Your task to perform on an android device: choose inbox layout in the gmail app Image 0: 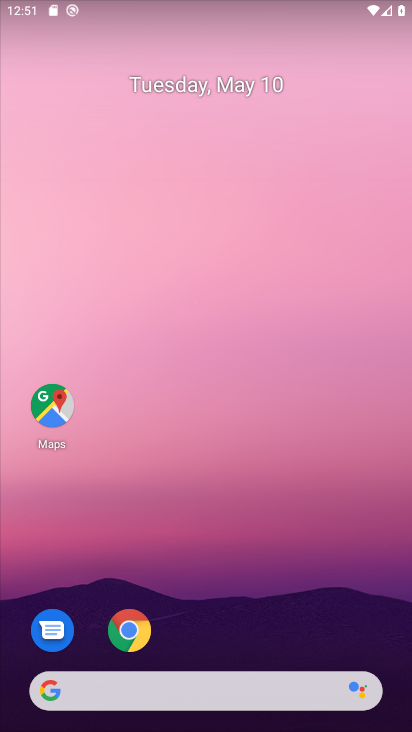
Step 0: drag from (198, 644) to (194, 31)
Your task to perform on an android device: choose inbox layout in the gmail app Image 1: 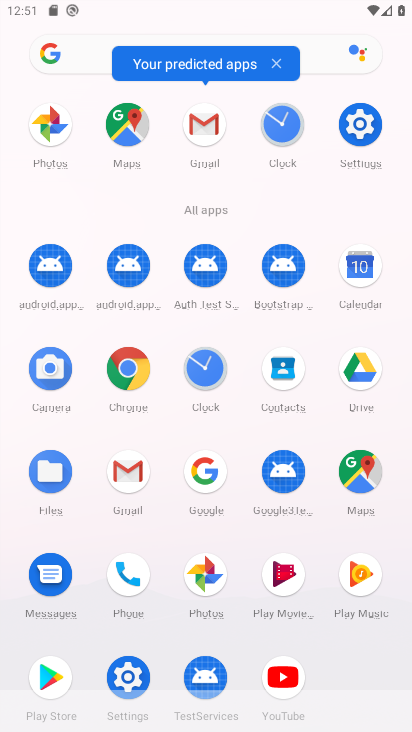
Step 1: click (132, 480)
Your task to perform on an android device: choose inbox layout in the gmail app Image 2: 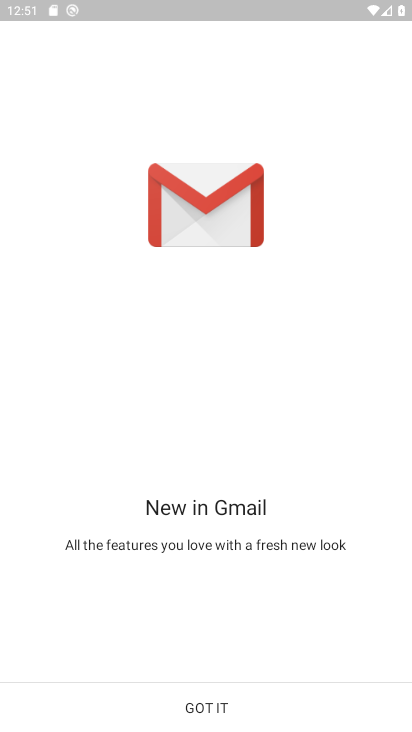
Step 2: click (197, 684)
Your task to perform on an android device: choose inbox layout in the gmail app Image 3: 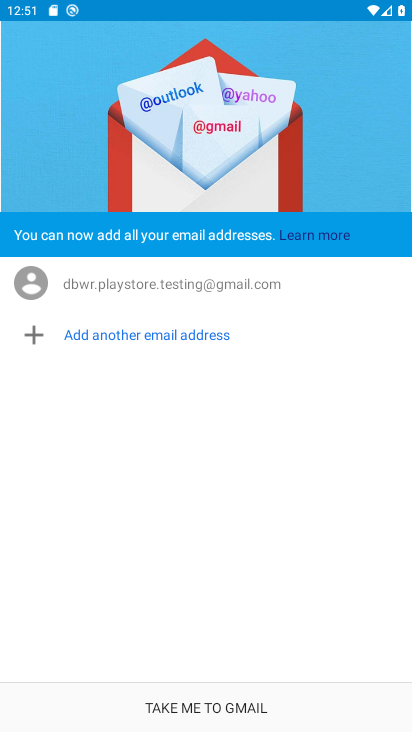
Step 3: click (216, 717)
Your task to perform on an android device: choose inbox layout in the gmail app Image 4: 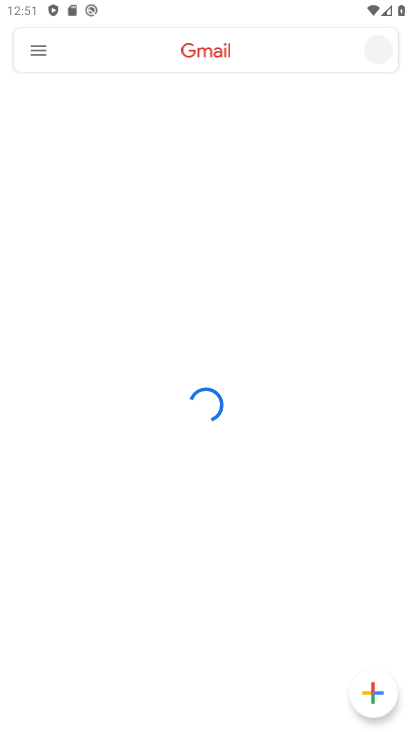
Step 4: click (37, 47)
Your task to perform on an android device: choose inbox layout in the gmail app Image 5: 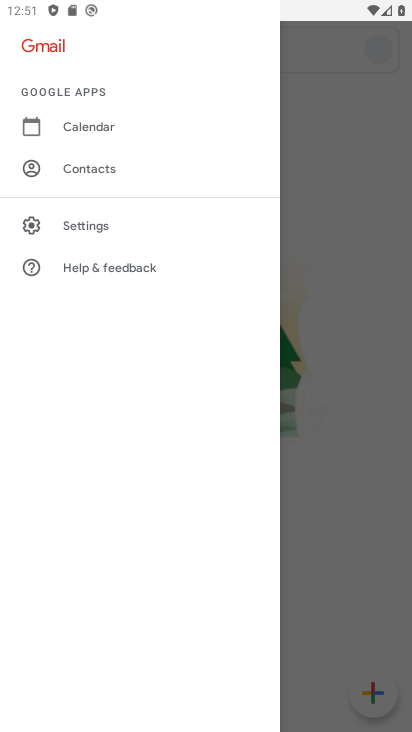
Step 5: click (57, 207)
Your task to perform on an android device: choose inbox layout in the gmail app Image 6: 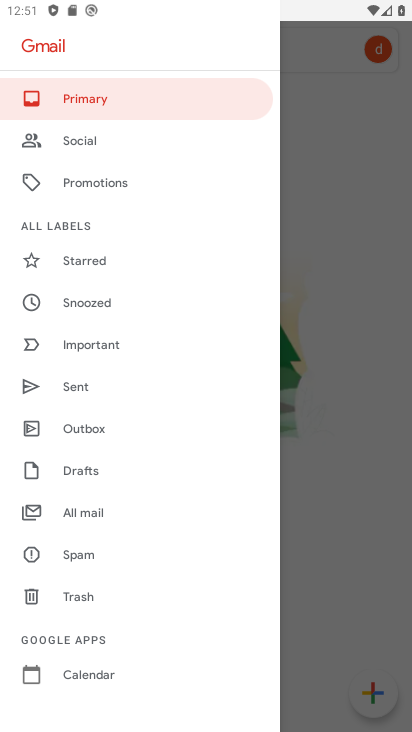
Step 6: drag from (184, 521) to (132, 22)
Your task to perform on an android device: choose inbox layout in the gmail app Image 7: 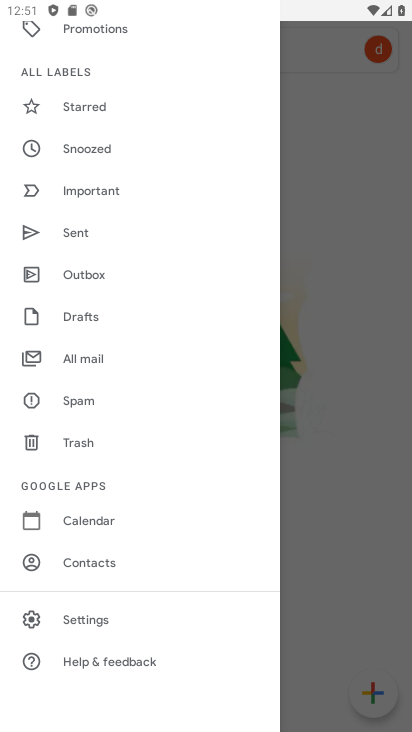
Step 7: click (88, 617)
Your task to perform on an android device: choose inbox layout in the gmail app Image 8: 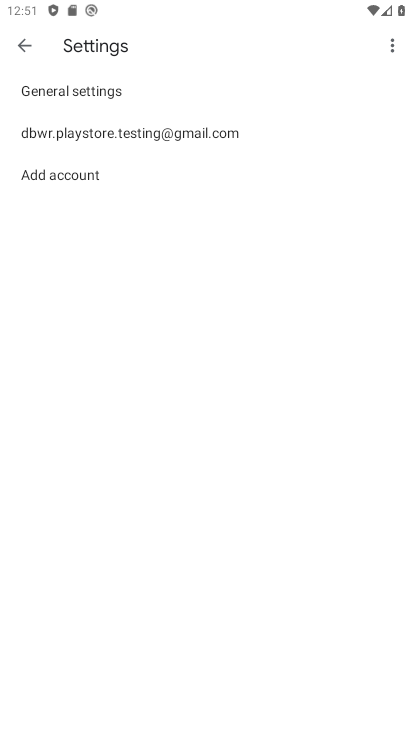
Step 8: click (60, 123)
Your task to perform on an android device: choose inbox layout in the gmail app Image 9: 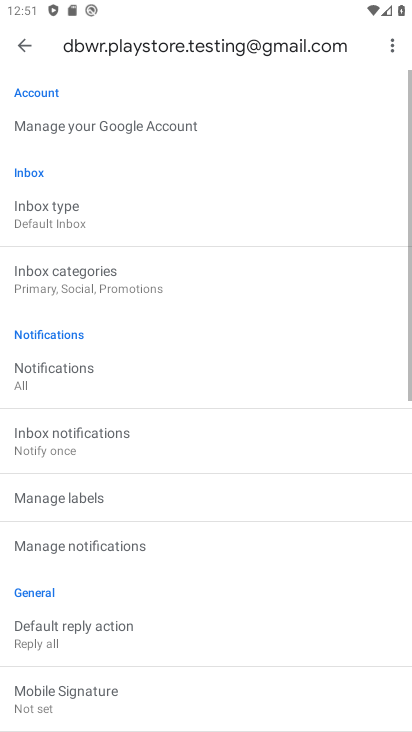
Step 9: click (89, 217)
Your task to perform on an android device: choose inbox layout in the gmail app Image 10: 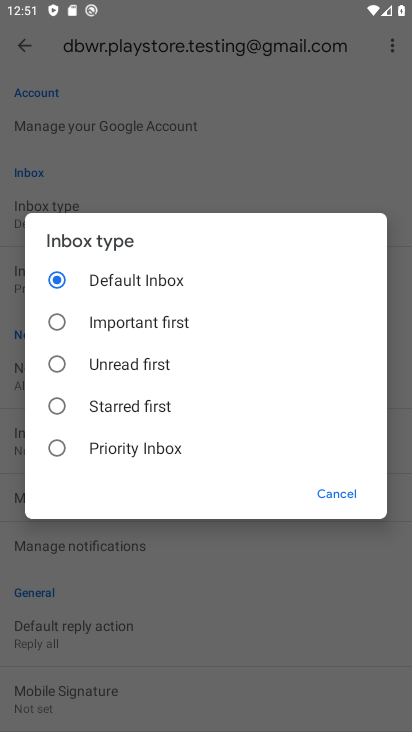
Step 10: click (118, 448)
Your task to perform on an android device: choose inbox layout in the gmail app Image 11: 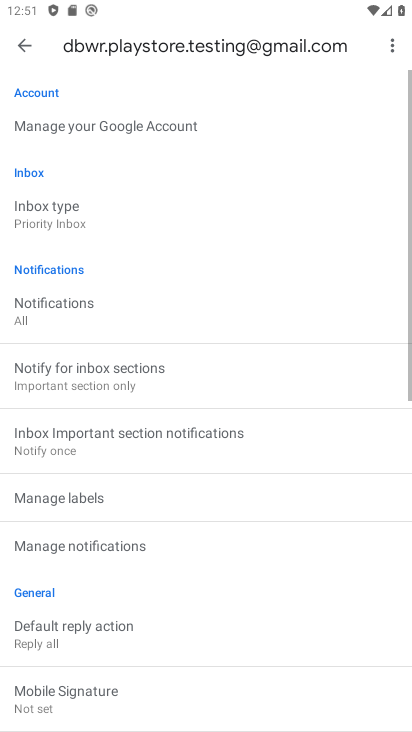
Step 11: click (27, 60)
Your task to perform on an android device: choose inbox layout in the gmail app Image 12: 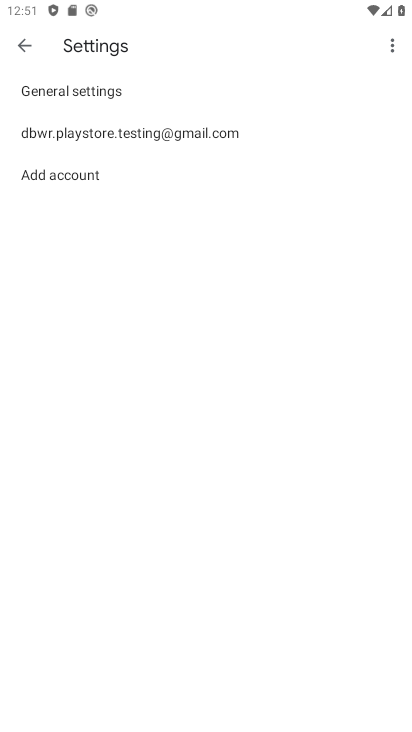
Step 12: click (28, 51)
Your task to perform on an android device: choose inbox layout in the gmail app Image 13: 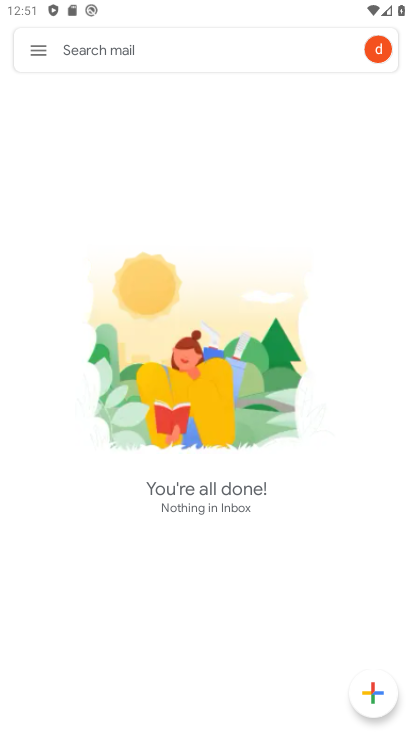
Step 13: task complete